Your task to perform on an android device: Open sound settings Image 0: 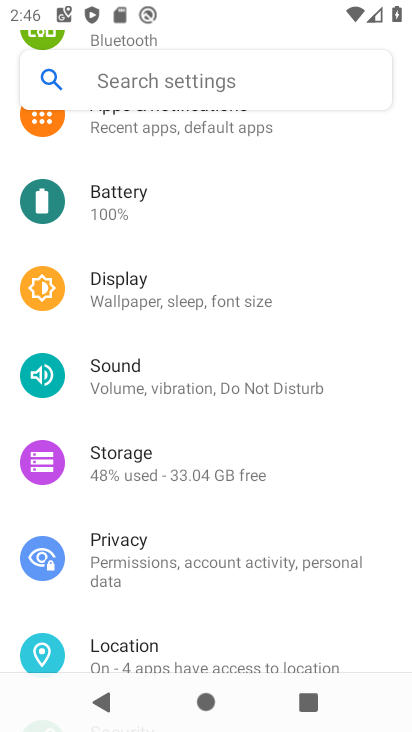
Step 0: click (118, 389)
Your task to perform on an android device: Open sound settings Image 1: 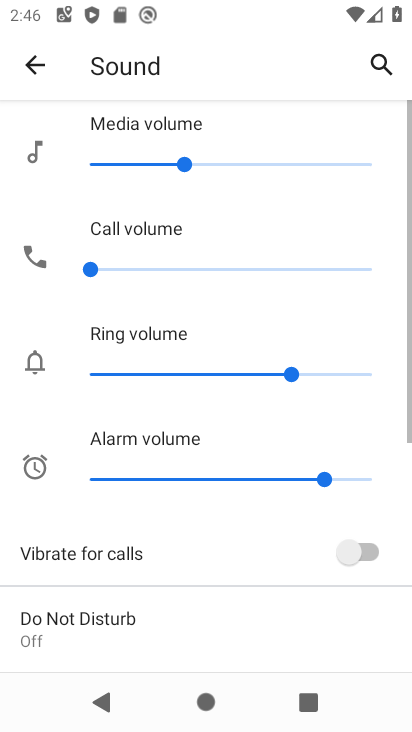
Step 1: task complete